Your task to perform on an android device: Add "razer blade" to the cart on amazon, then select checkout. Image 0: 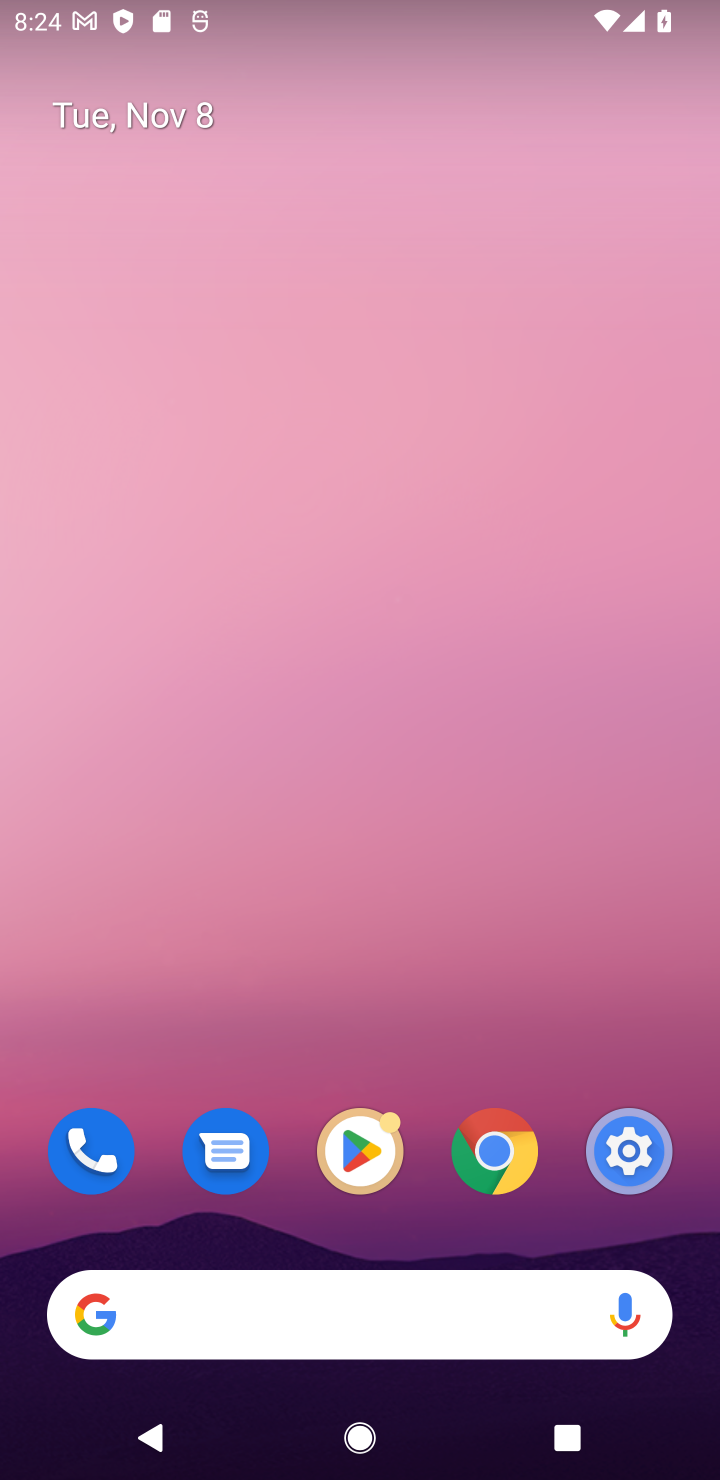
Step 0: click (357, 1345)
Your task to perform on an android device: Add "razer blade" to the cart on amazon, then select checkout. Image 1: 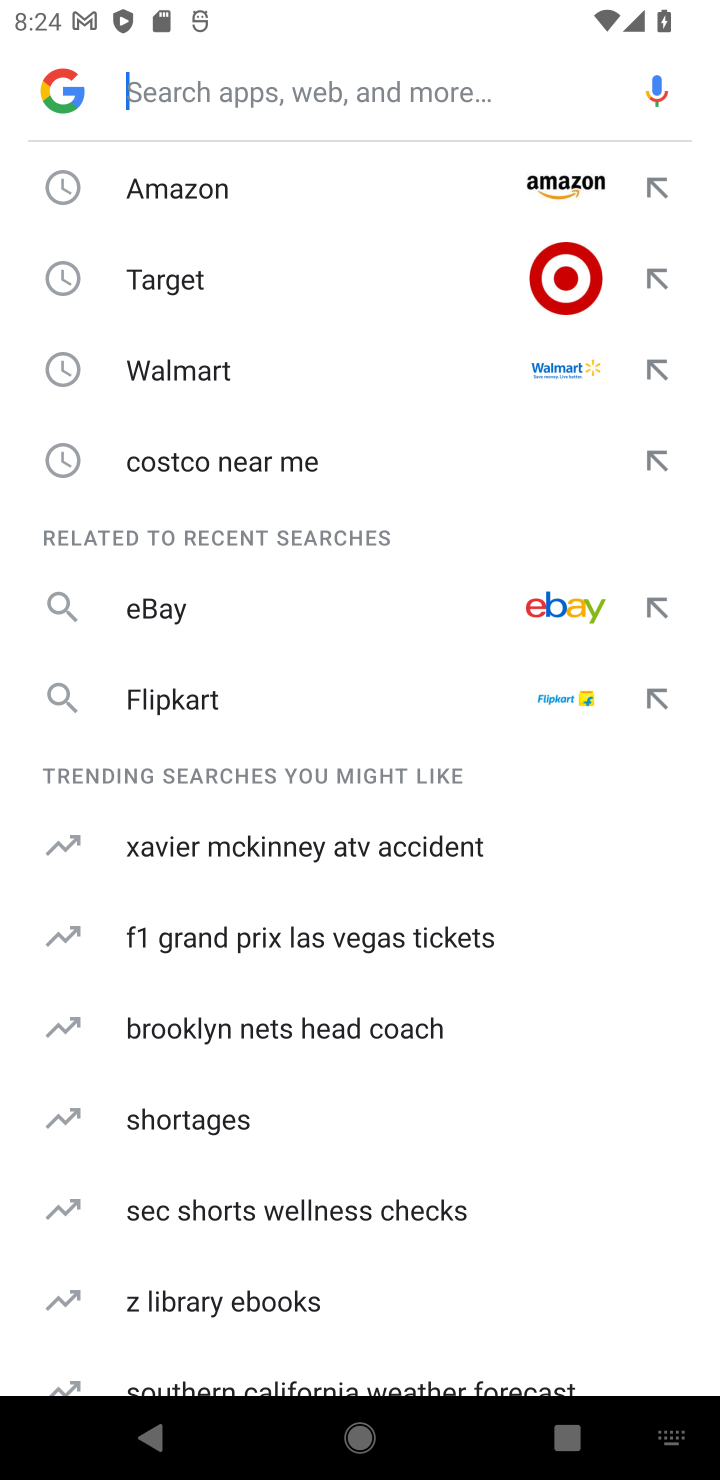
Step 1: click (219, 187)
Your task to perform on an android device: Add "razer blade" to the cart on amazon, then select checkout. Image 2: 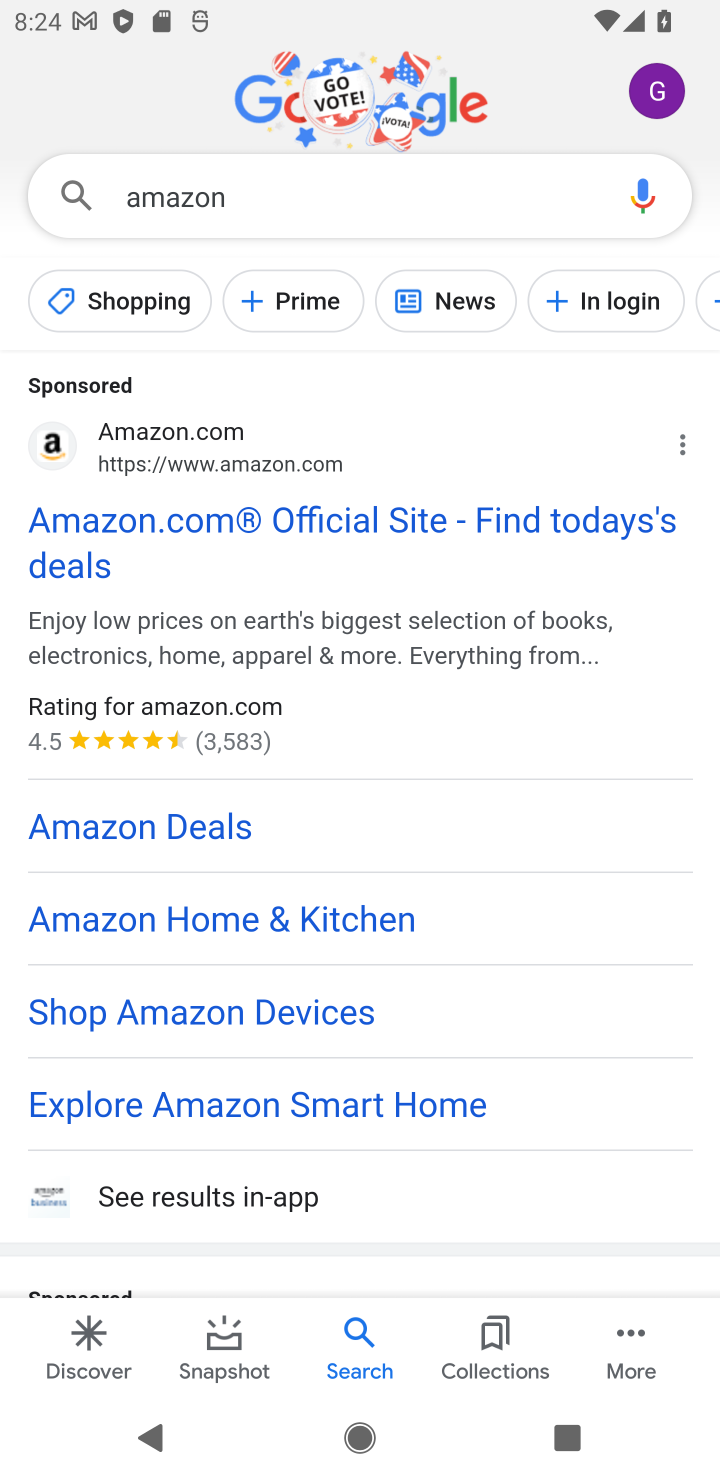
Step 2: click (109, 570)
Your task to perform on an android device: Add "razer blade" to the cart on amazon, then select checkout. Image 3: 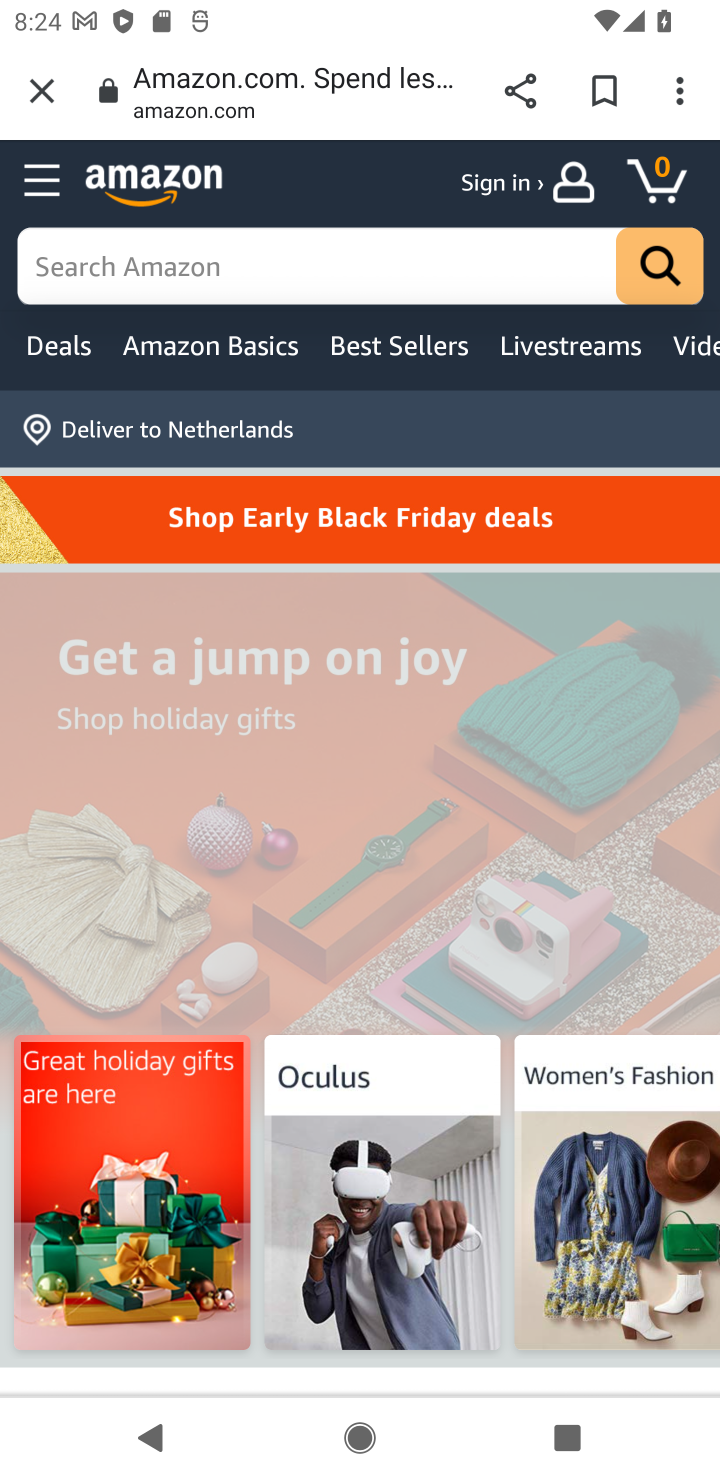
Step 3: click (343, 228)
Your task to perform on an android device: Add "razer blade" to the cart on amazon, then select checkout. Image 4: 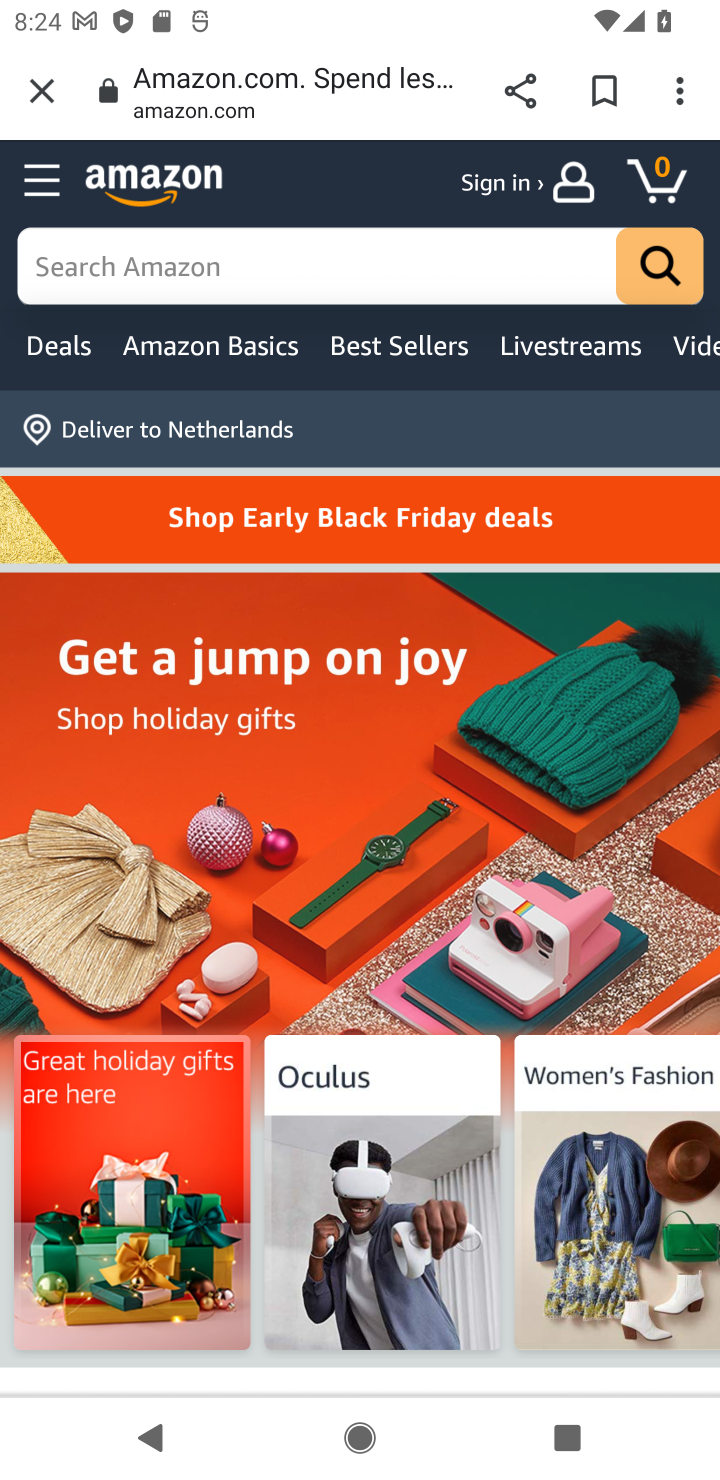
Step 4: click (338, 239)
Your task to perform on an android device: Add "razer blade" to the cart on amazon, then select checkout. Image 5: 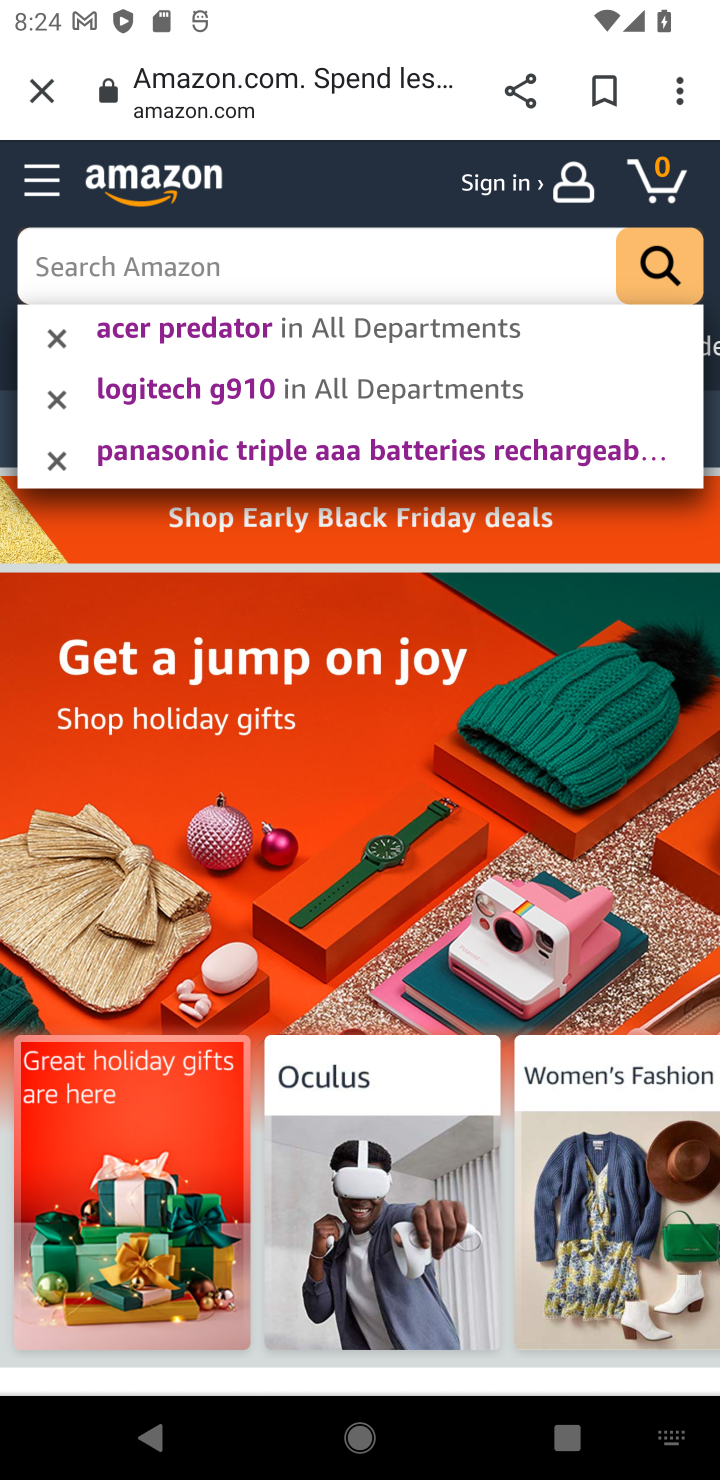
Step 5: click (389, 303)
Your task to perform on an android device: Add "razer blade" to the cart on amazon, then select checkout. Image 6: 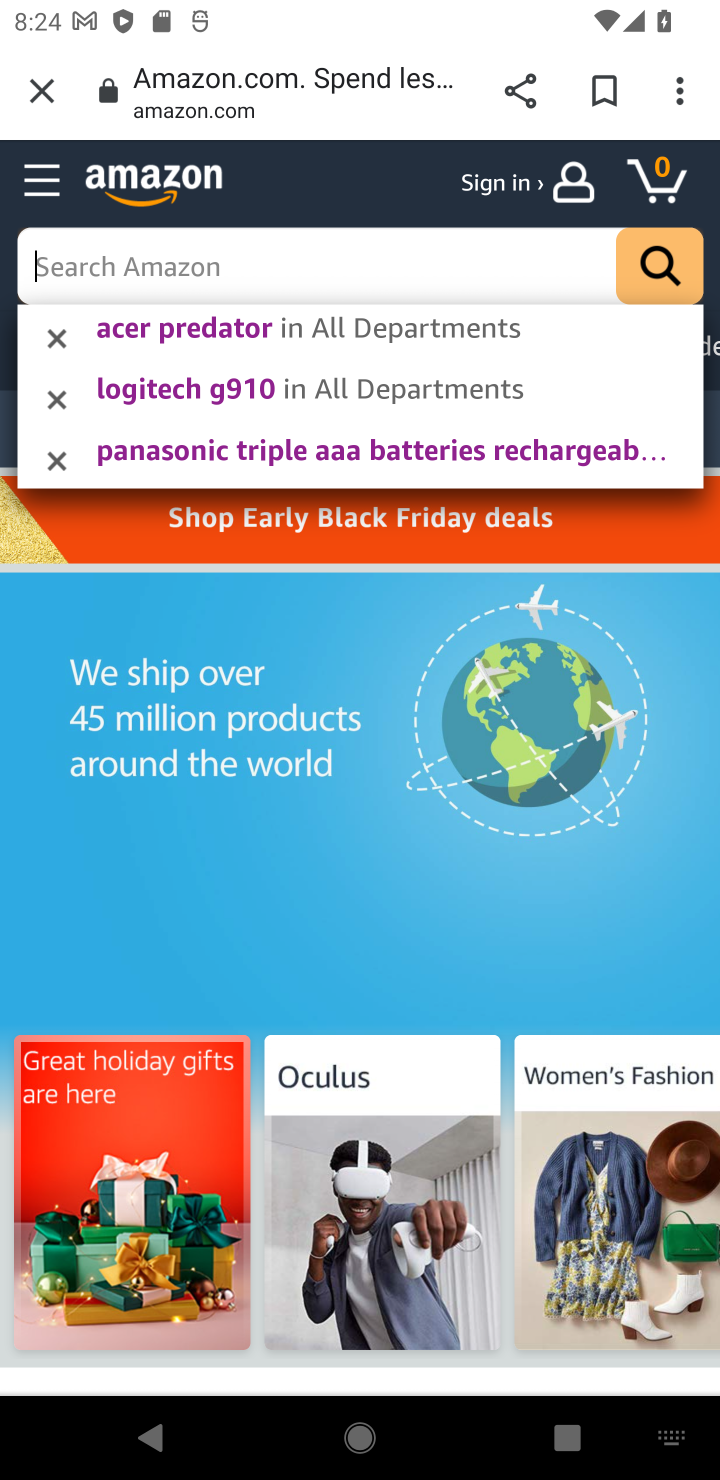
Step 6: type "razer blade"
Your task to perform on an android device: Add "razer blade" to the cart on amazon, then select checkout. Image 7: 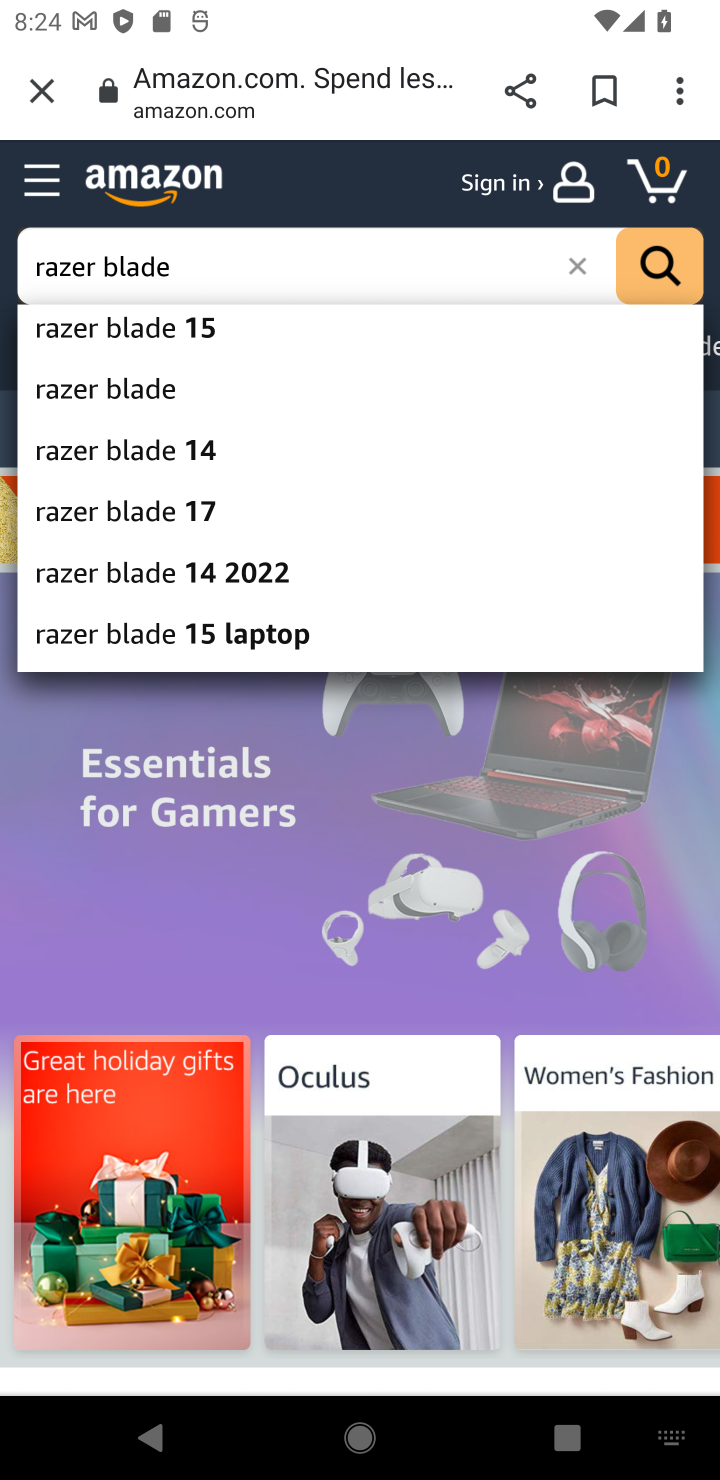
Step 7: click (223, 337)
Your task to perform on an android device: Add "razer blade" to the cart on amazon, then select checkout. Image 8: 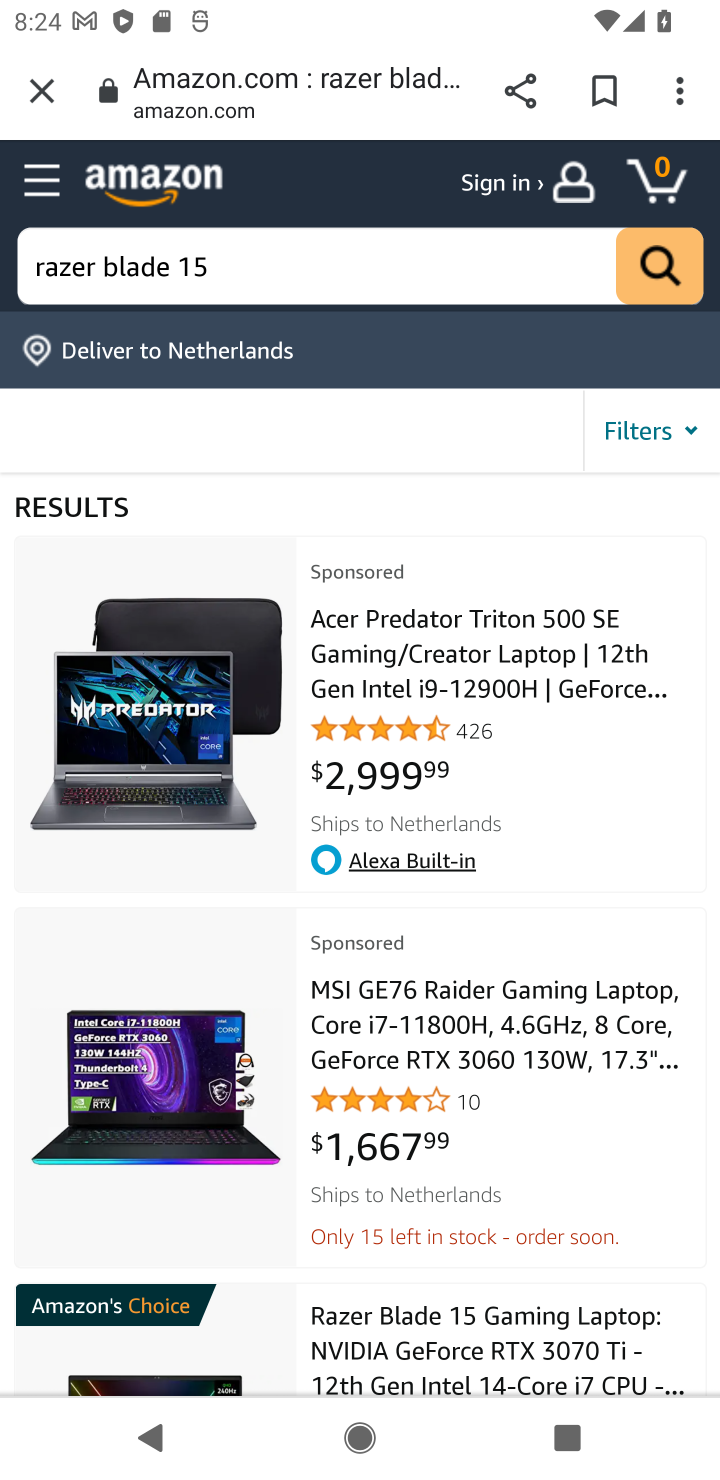
Step 8: click (492, 672)
Your task to perform on an android device: Add "razer blade" to the cart on amazon, then select checkout. Image 9: 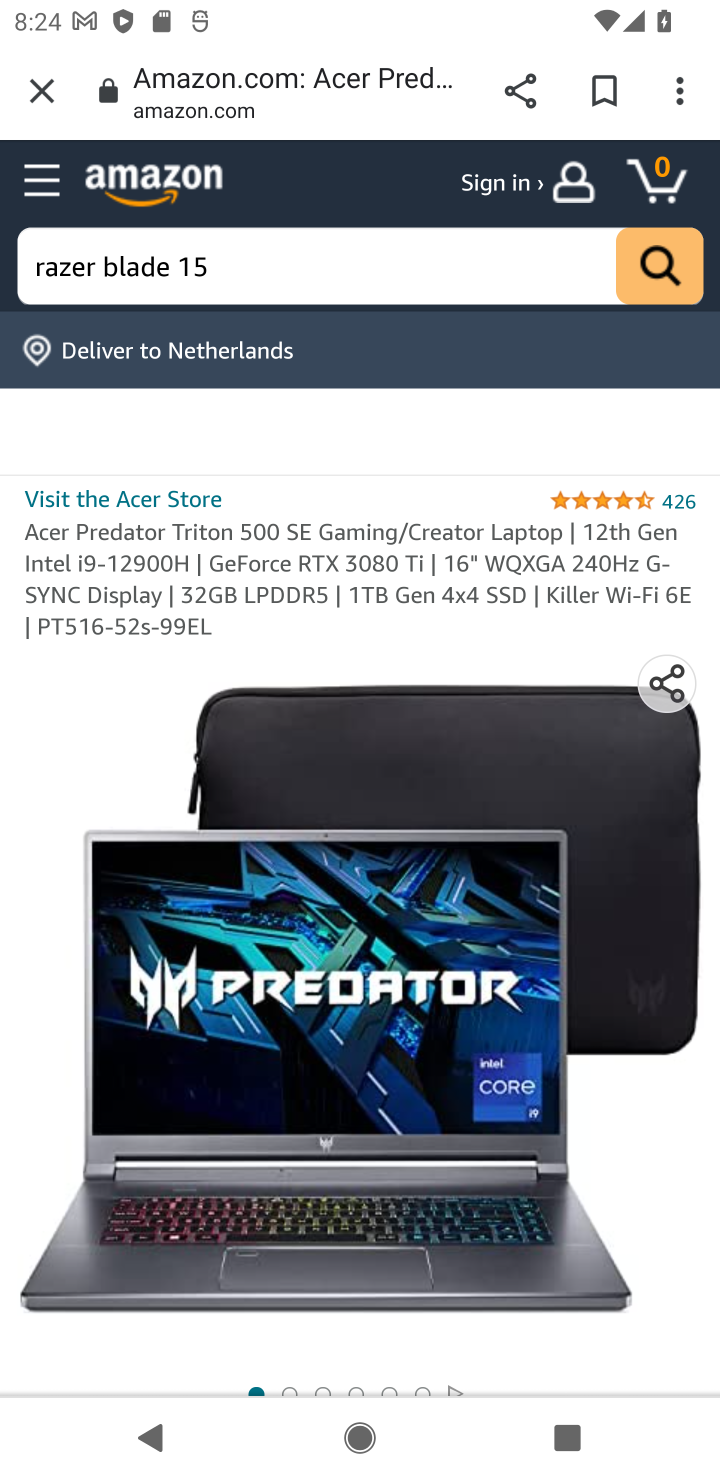
Step 9: task complete